Your task to perform on an android device: open app "Chime – Mobile Banking" (install if not already installed) and go to login screen Image 0: 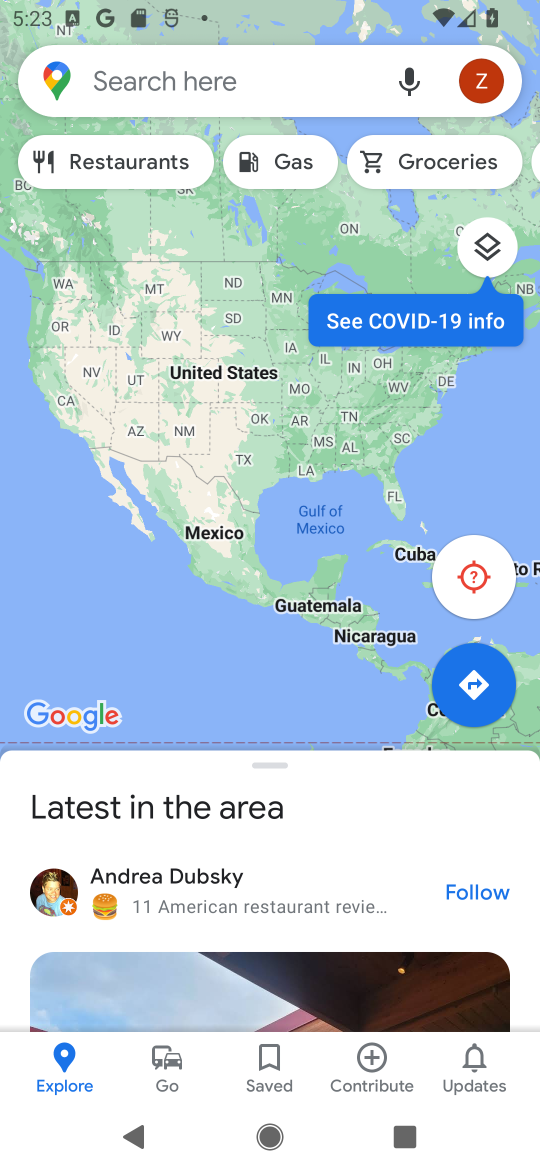
Step 0: press home button
Your task to perform on an android device: open app "Chime – Mobile Banking" (install if not already installed) and go to login screen Image 1: 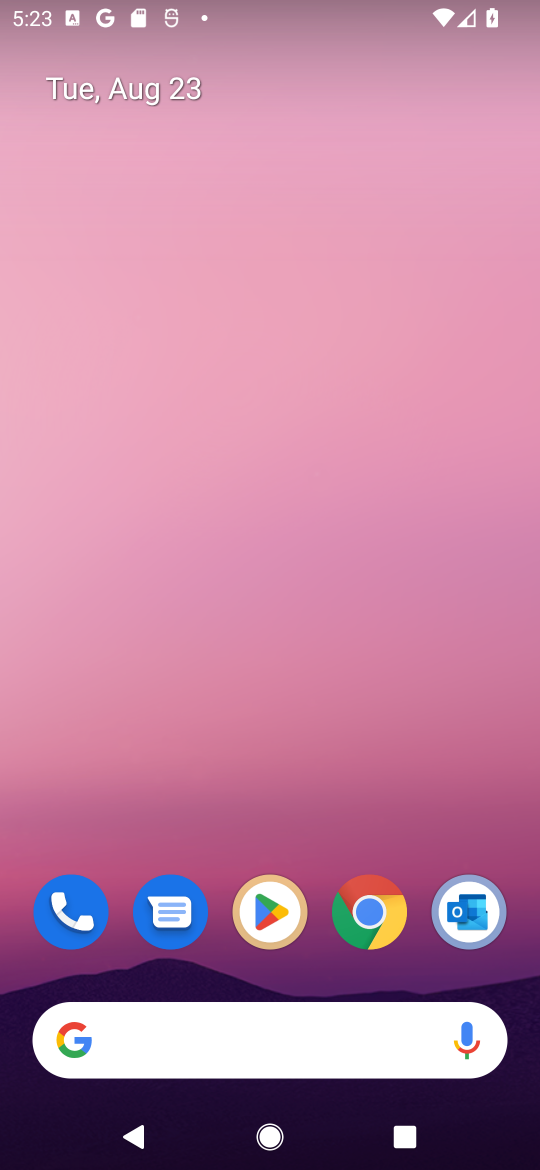
Step 1: click (267, 907)
Your task to perform on an android device: open app "Chime – Mobile Banking" (install if not already installed) and go to login screen Image 2: 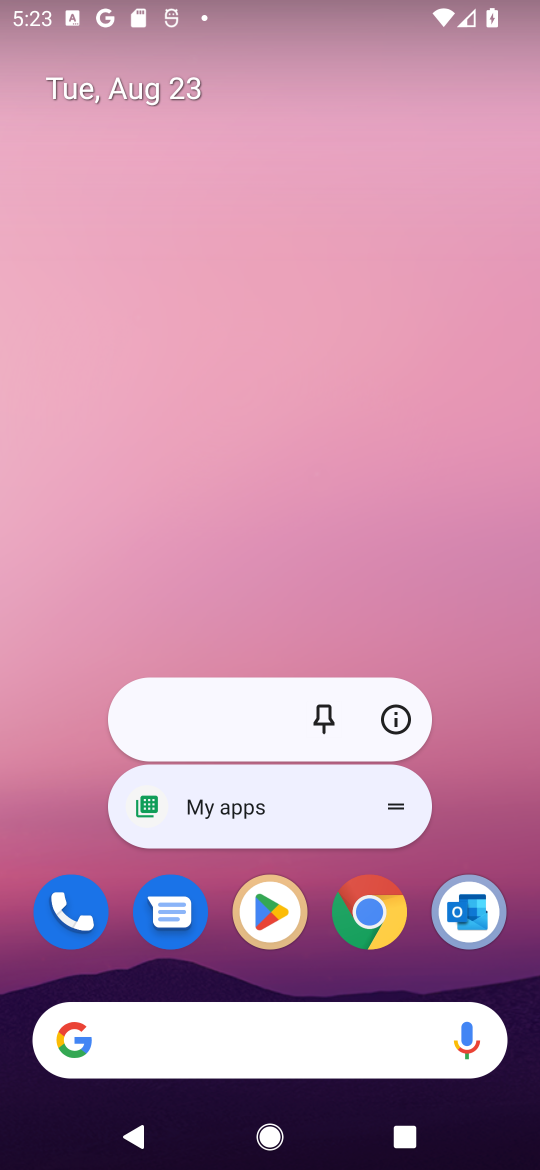
Step 2: click (261, 900)
Your task to perform on an android device: open app "Chime – Mobile Banking" (install if not already installed) and go to login screen Image 3: 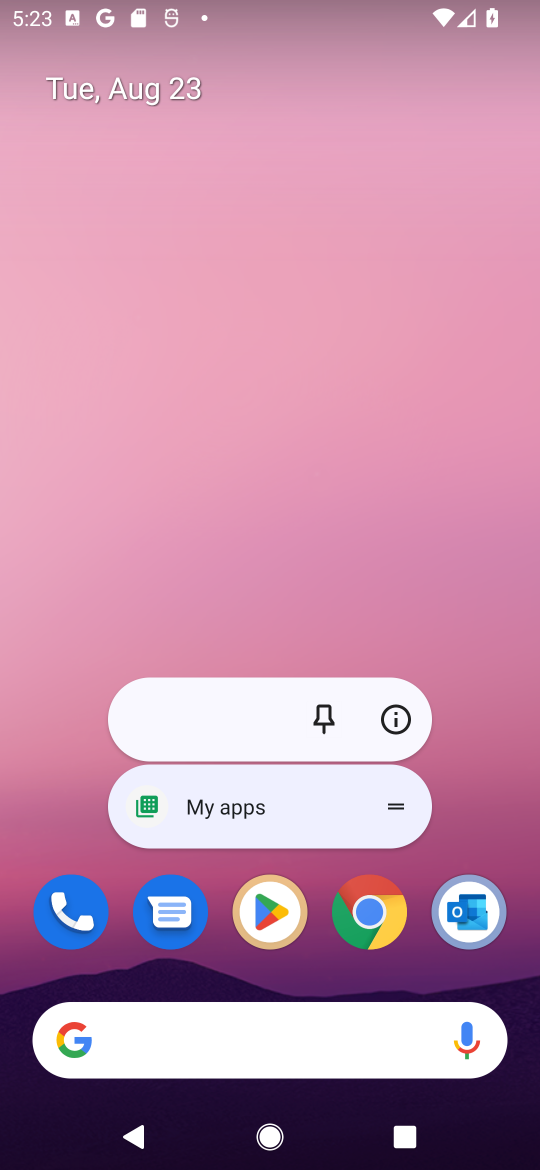
Step 3: click (261, 900)
Your task to perform on an android device: open app "Chime – Mobile Banking" (install if not already installed) and go to login screen Image 4: 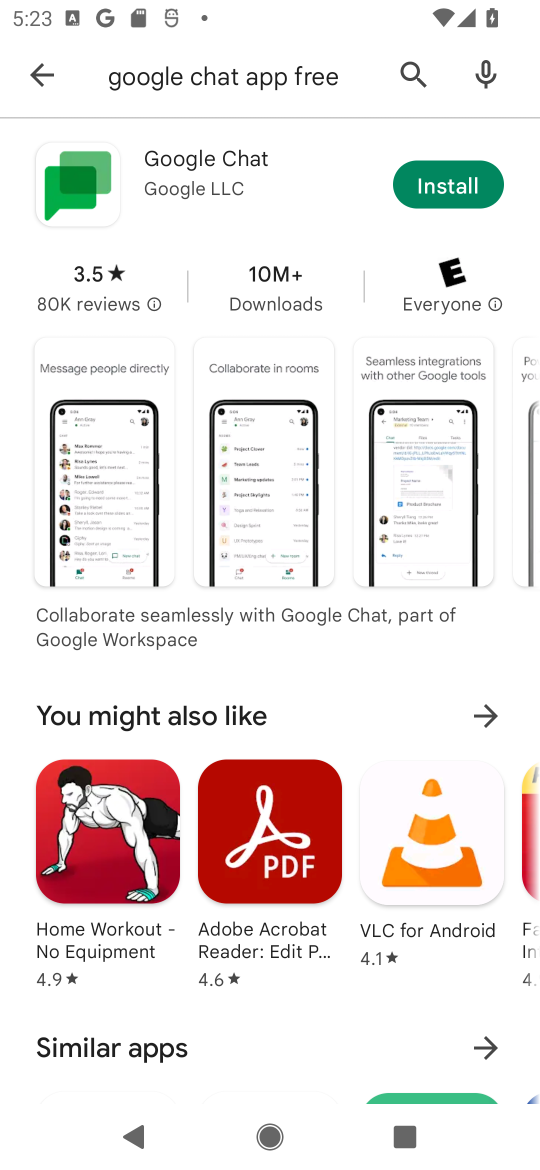
Step 4: click (50, 67)
Your task to perform on an android device: open app "Chime – Mobile Banking" (install if not already installed) and go to login screen Image 5: 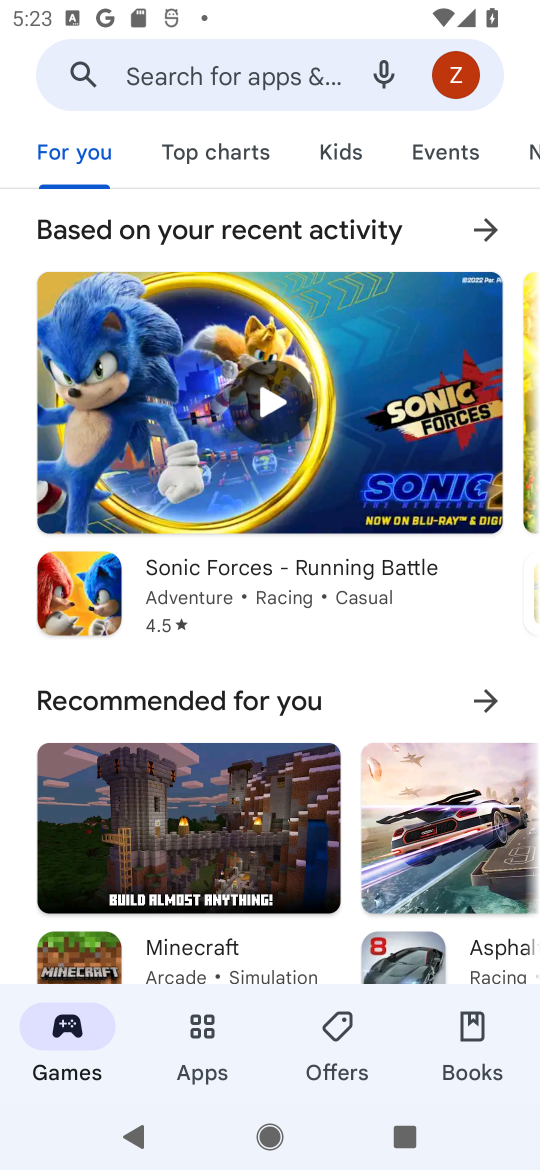
Step 5: click (174, 66)
Your task to perform on an android device: open app "Chime – Mobile Banking" (install if not already installed) and go to login screen Image 6: 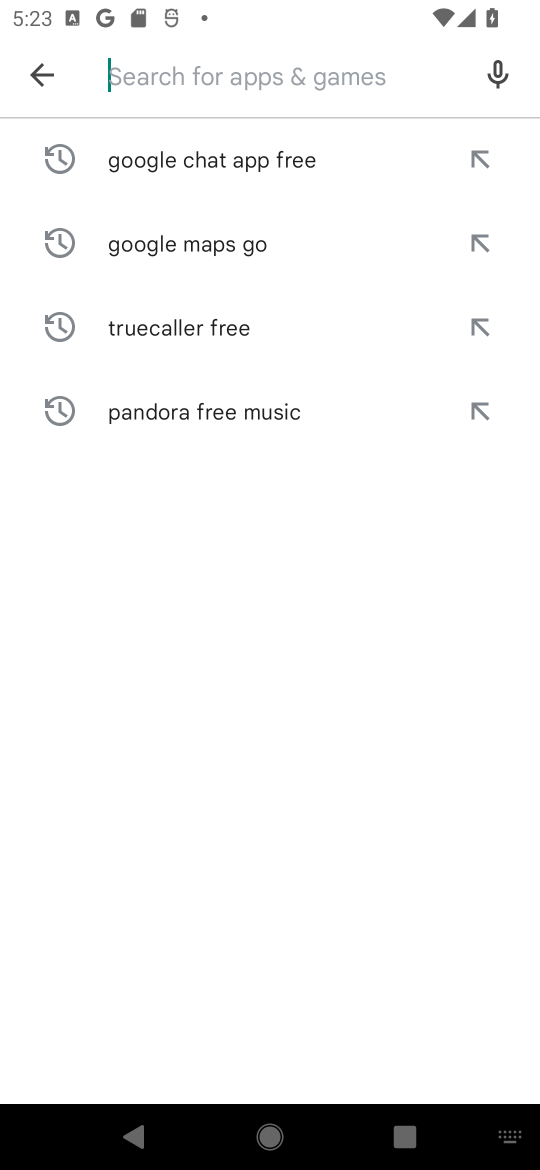
Step 6: type "chime "
Your task to perform on an android device: open app "Chime – Mobile Banking" (install if not already installed) and go to login screen Image 7: 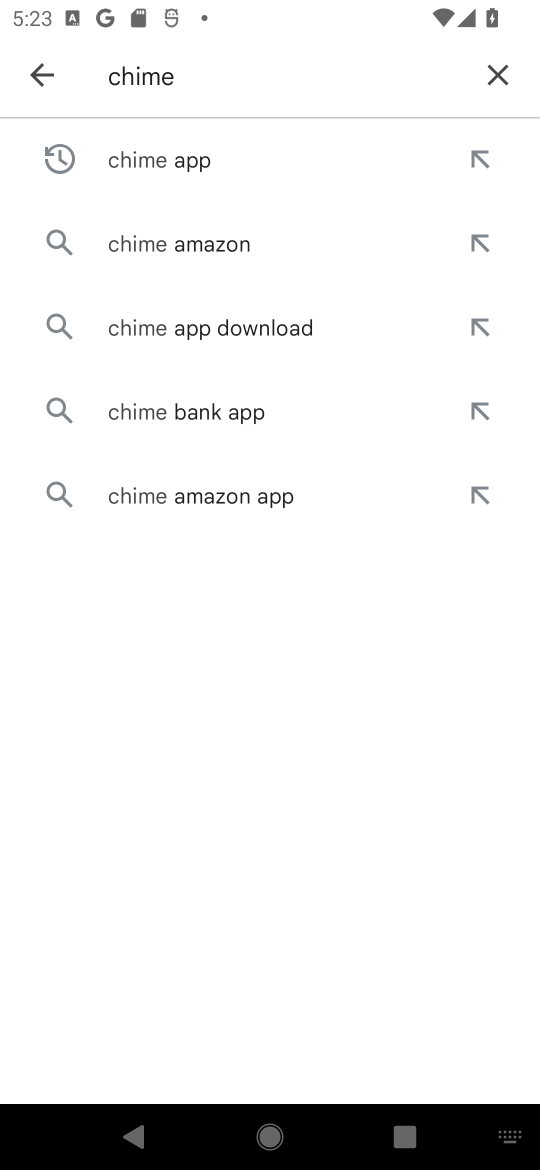
Step 7: click (174, 151)
Your task to perform on an android device: open app "Chime – Mobile Banking" (install if not already installed) and go to login screen Image 8: 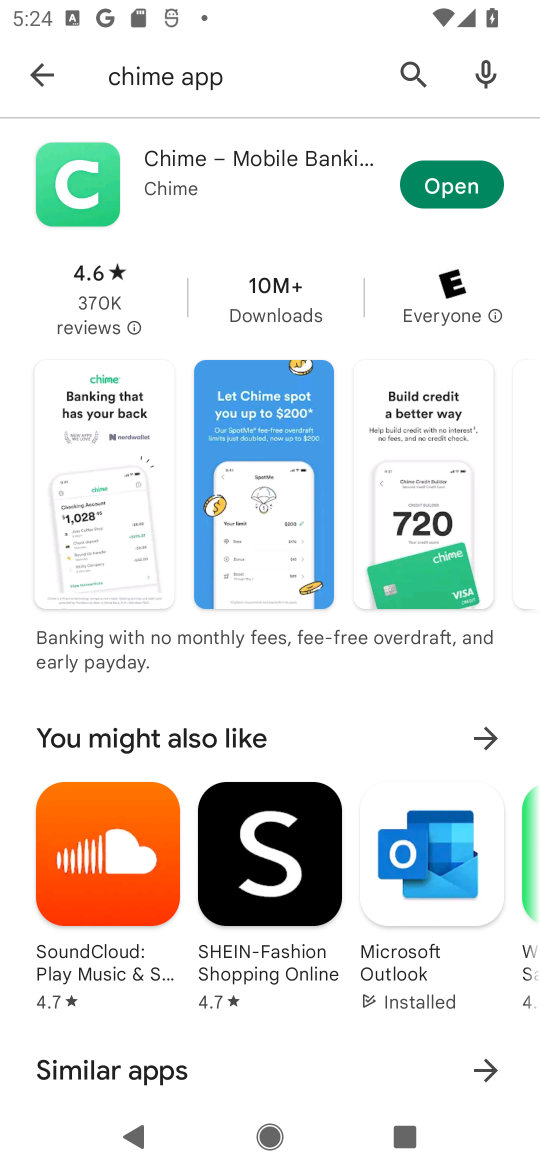
Step 8: click (455, 181)
Your task to perform on an android device: open app "Chime – Mobile Banking" (install if not already installed) and go to login screen Image 9: 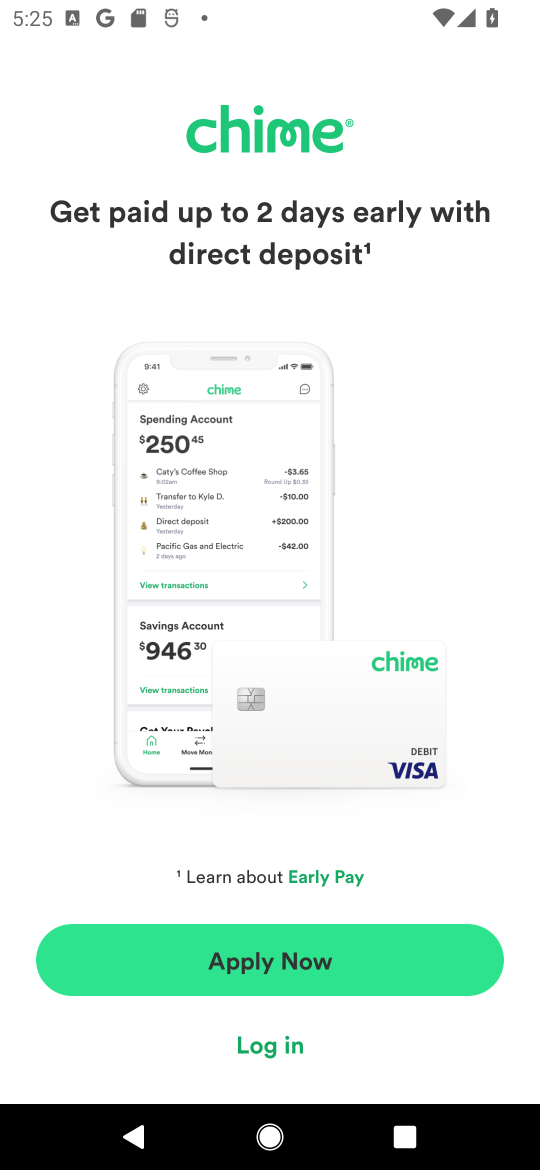
Step 9: task complete